Your task to perform on an android device: Open Chrome and go to settings Image 0: 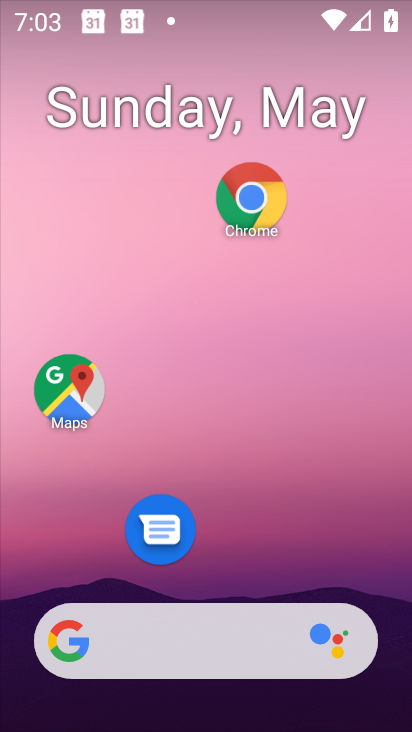
Step 0: click (246, 202)
Your task to perform on an android device: Open Chrome and go to settings Image 1: 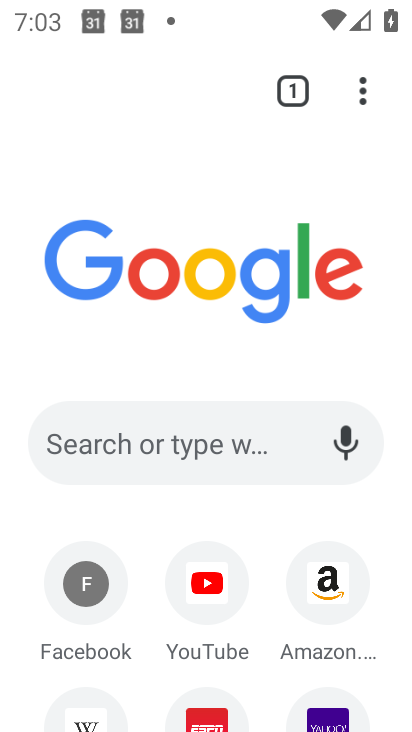
Step 1: click (361, 86)
Your task to perform on an android device: Open Chrome and go to settings Image 2: 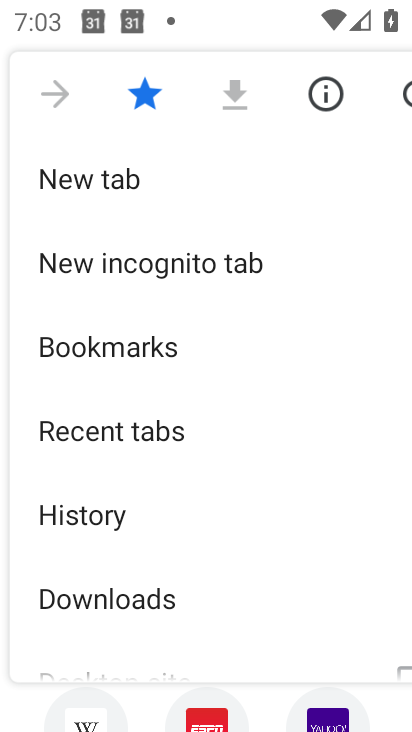
Step 2: drag from (153, 565) to (196, 261)
Your task to perform on an android device: Open Chrome and go to settings Image 3: 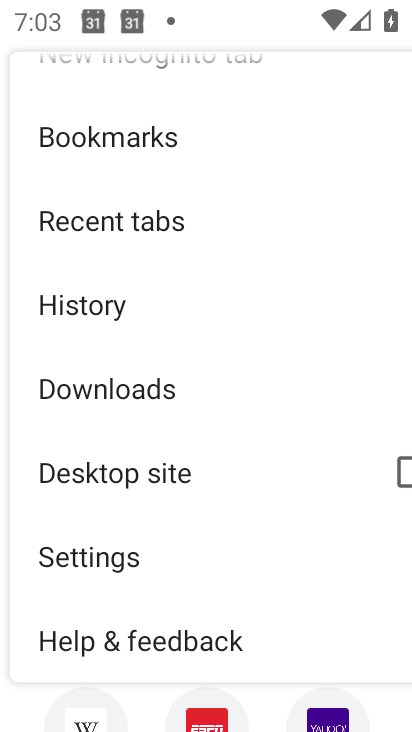
Step 3: click (143, 543)
Your task to perform on an android device: Open Chrome and go to settings Image 4: 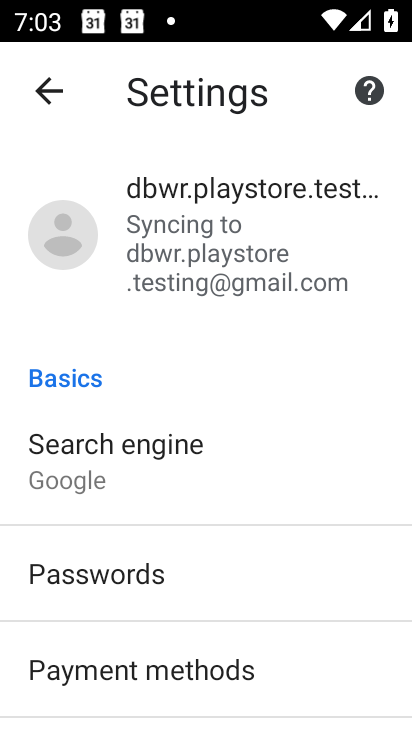
Step 4: task complete